Your task to perform on an android device: all mails in gmail Image 0: 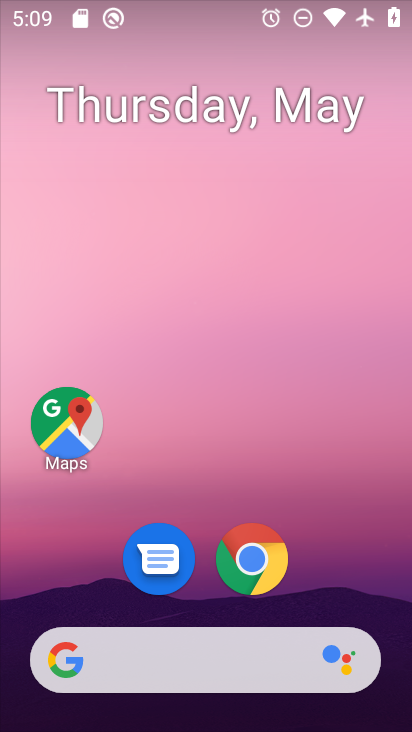
Step 0: drag from (332, 501) to (189, 0)
Your task to perform on an android device: all mails in gmail Image 1: 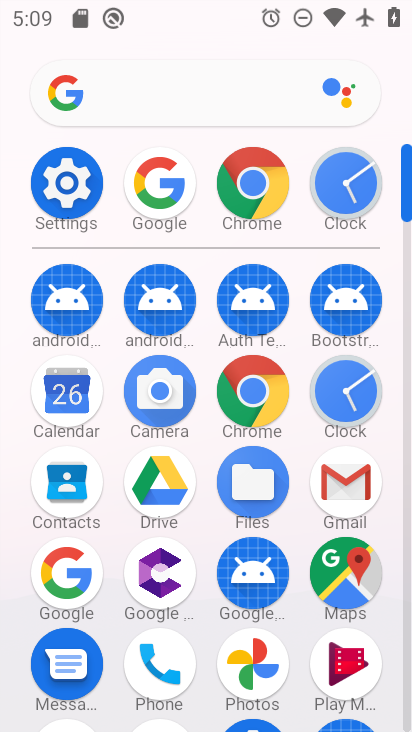
Step 1: click (347, 490)
Your task to perform on an android device: all mails in gmail Image 2: 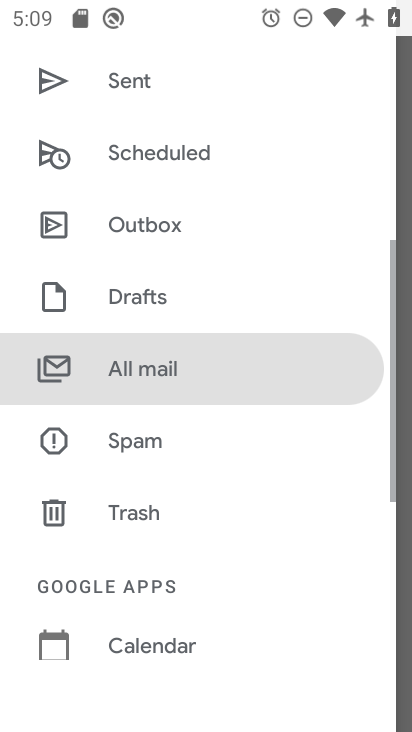
Step 2: click (220, 378)
Your task to perform on an android device: all mails in gmail Image 3: 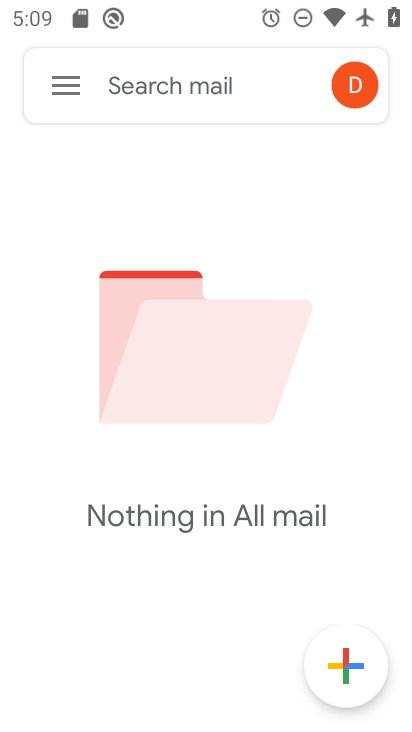
Step 3: task complete